Your task to perform on an android device: Go to calendar. Show me events next week Image 0: 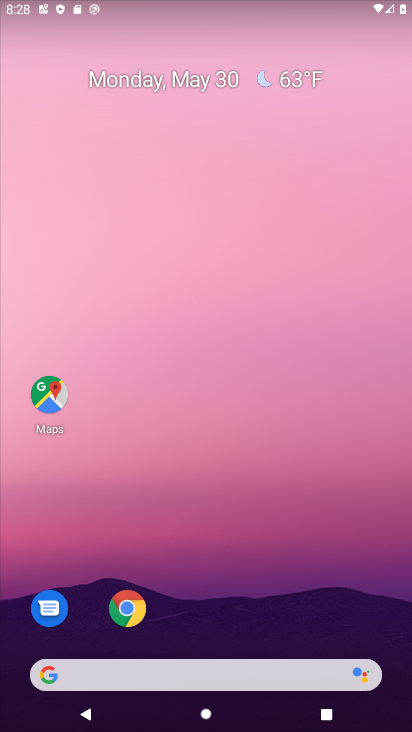
Step 0: drag from (388, 657) to (311, 89)
Your task to perform on an android device: Go to calendar. Show me events next week Image 1: 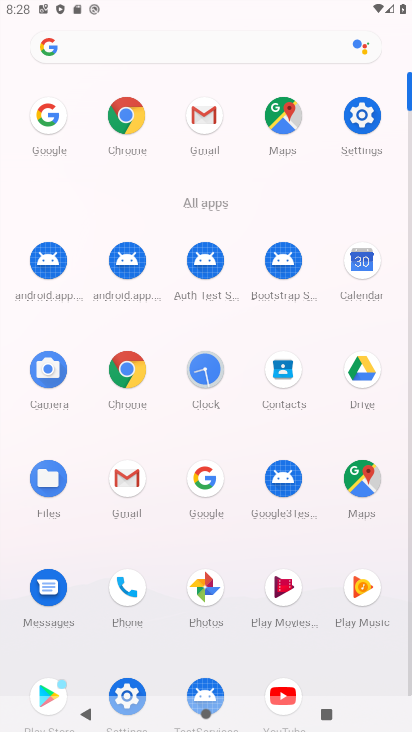
Step 1: click (356, 274)
Your task to perform on an android device: Go to calendar. Show me events next week Image 2: 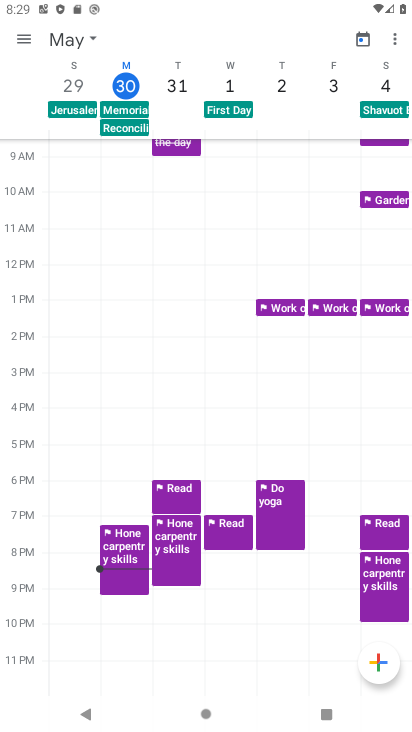
Step 2: task complete